Your task to perform on an android device: clear all cookies in the chrome app Image 0: 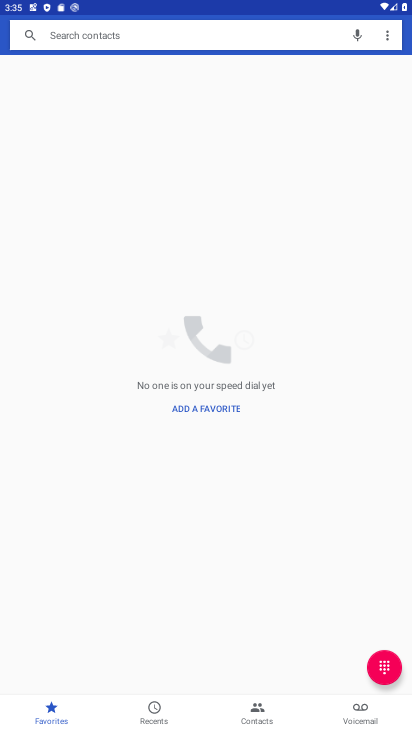
Step 0: press home button
Your task to perform on an android device: clear all cookies in the chrome app Image 1: 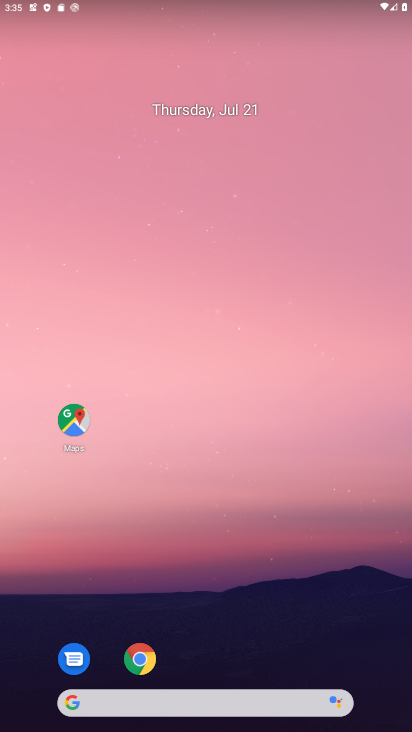
Step 1: click (139, 663)
Your task to perform on an android device: clear all cookies in the chrome app Image 2: 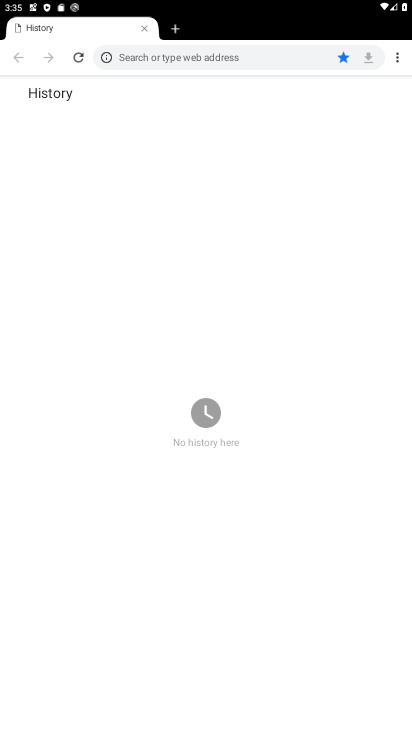
Step 2: click (402, 55)
Your task to perform on an android device: clear all cookies in the chrome app Image 3: 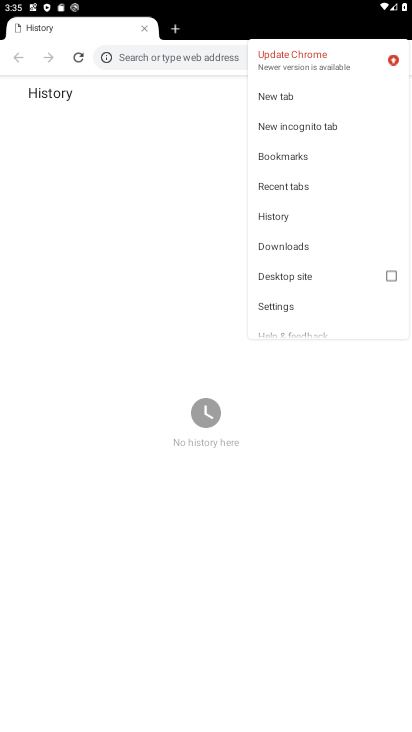
Step 3: click (274, 213)
Your task to perform on an android device: clear all cookies in the chrome app Image 4: 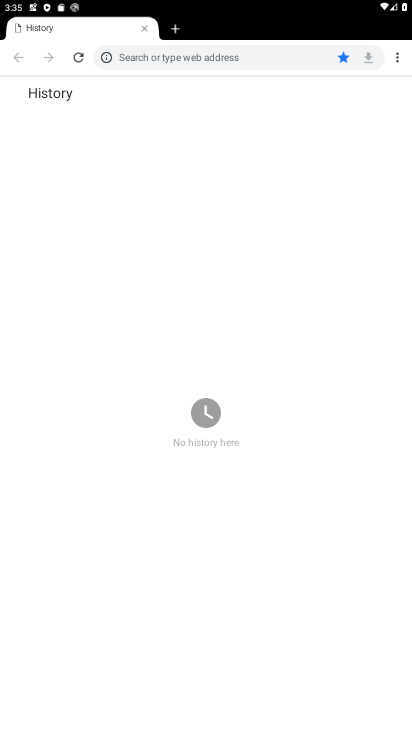
Step 4: task complete